Your task to perform on an android device: Search for vegetarian restaurants on Maps Image 0: 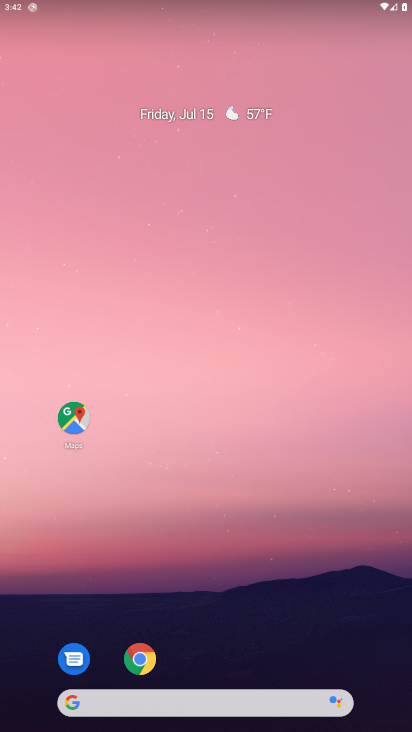
Step 0: click (68, 416)
Your task to perform on an android device: Search for vegetarian restaurants on Maps Image 1: 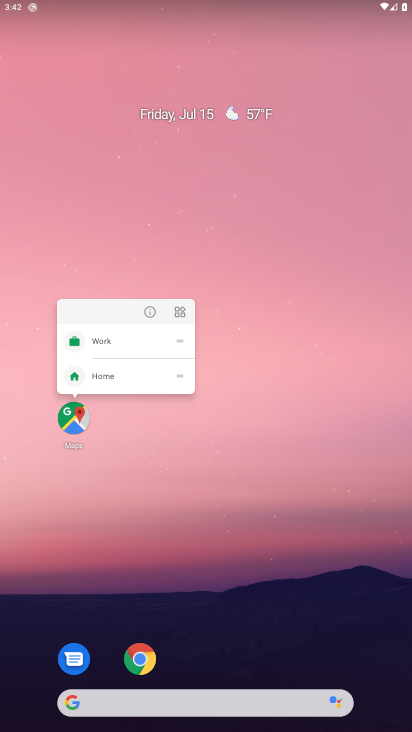
Step 1: click (67, 412)
Your task to perform on an android device: Search for vegetarian restaurants on Maps Image 2: 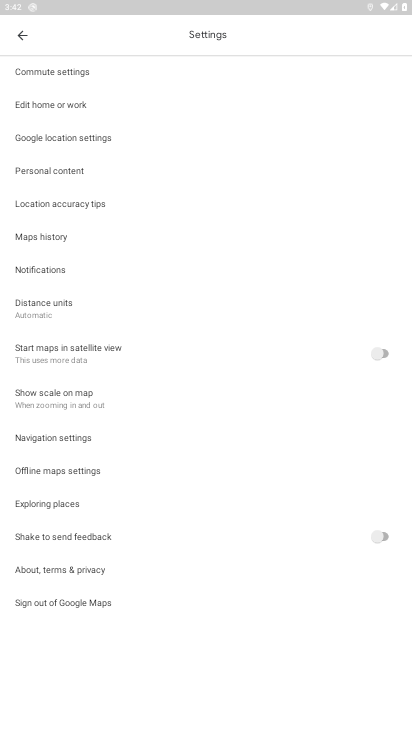
Step 2: click (27, 35)
Your task to perform on an android device: Search for vegetarian restaurants on Maps Image 3: 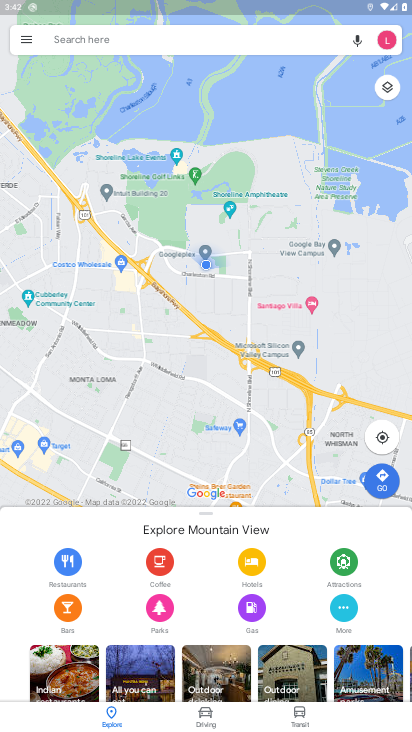
Step 3: click (49, 38)
Your task to perform on an android device: Search for vegetarian restaurants on Maps Image 4: 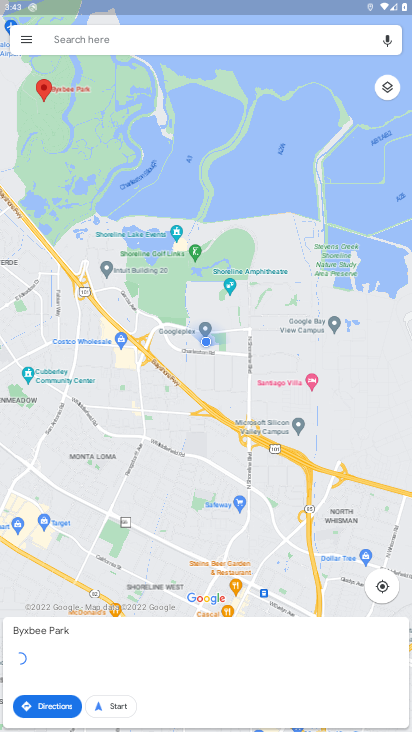
Step 4: click (62, 35)
Your task to perform on an android device: Search for vegetarian restaurants on Maps Image 5: 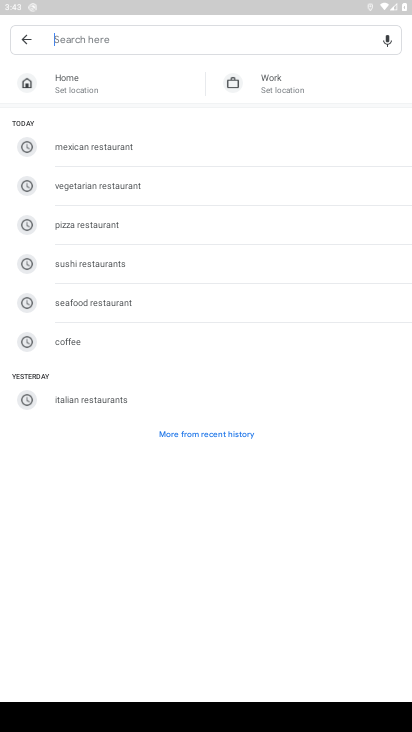
Step 5: click (96, 192)
Your task to perform on an android device: Search for vegetarian restaurants on Maps Image 6: 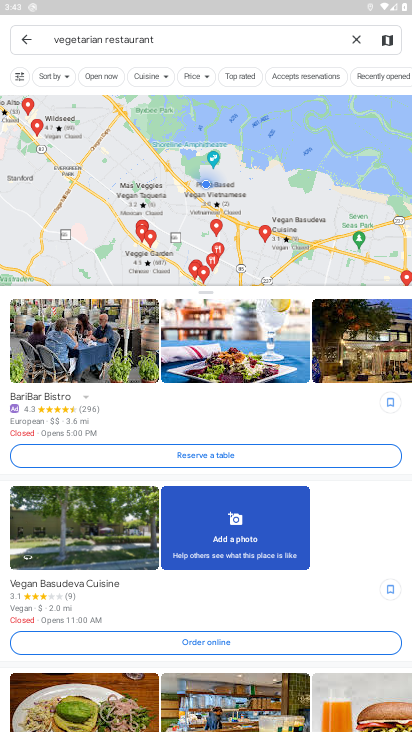
Step 6: task complete